Your task to perform on an android device: Go to eBay Image 0: 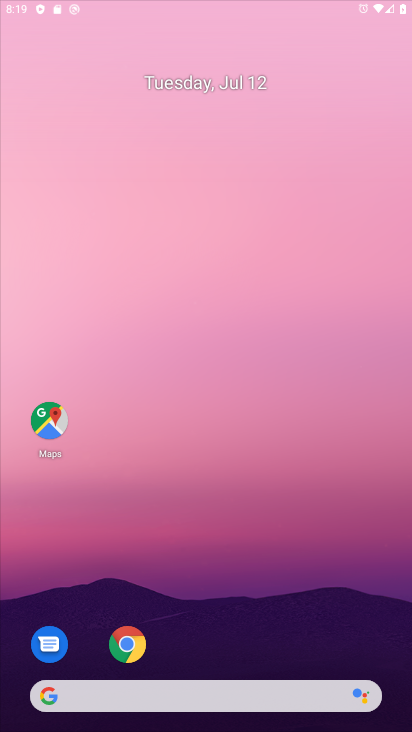
Step 0: click (87, 682)
Your task to perform on an android device: Go to eBay Image 1: 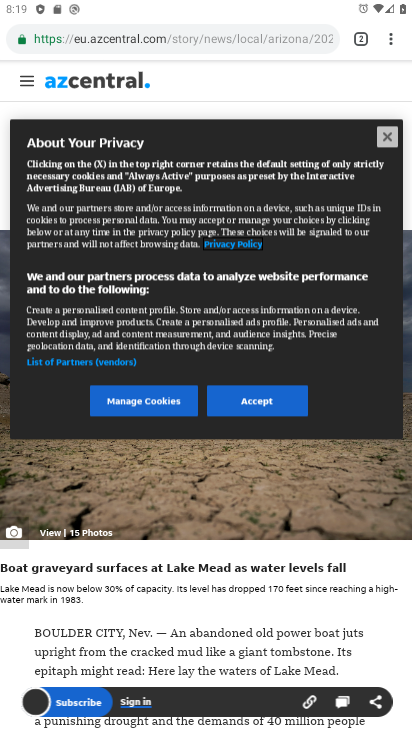
Step 1: click (116, 48)
Your task to perform on an android device: Go to eBay Image 2: 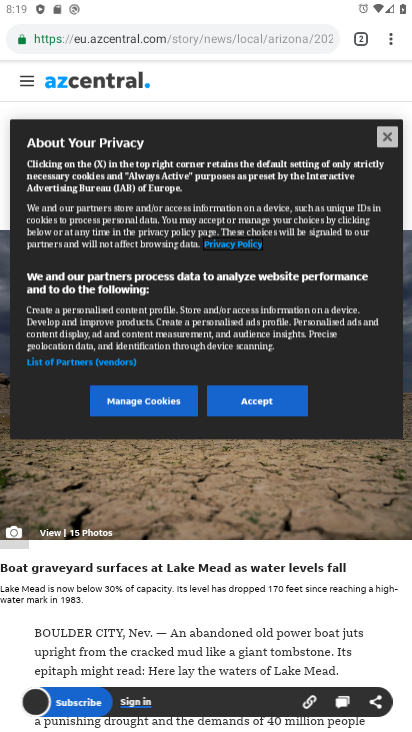
Step 2: click (146, 36)
Your task to perform on an android device: Go to eBay Image 3: 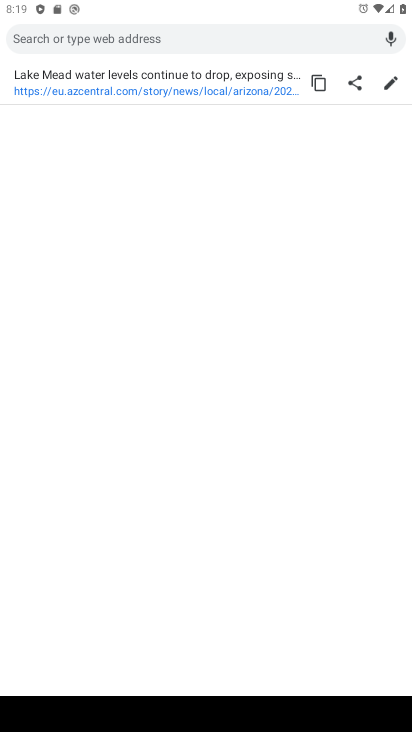
Step 3: type "eBay"
Your task to perform on an android device: Go to eBay Image 4: 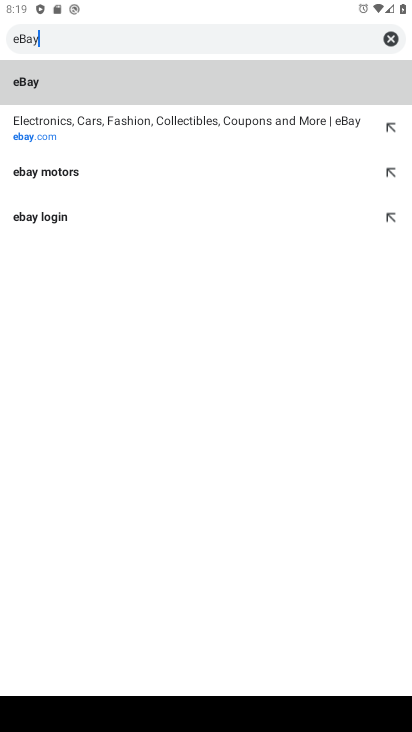
Step 4: type ""
Your task to perform on an android device: Go to eBay Image 5: 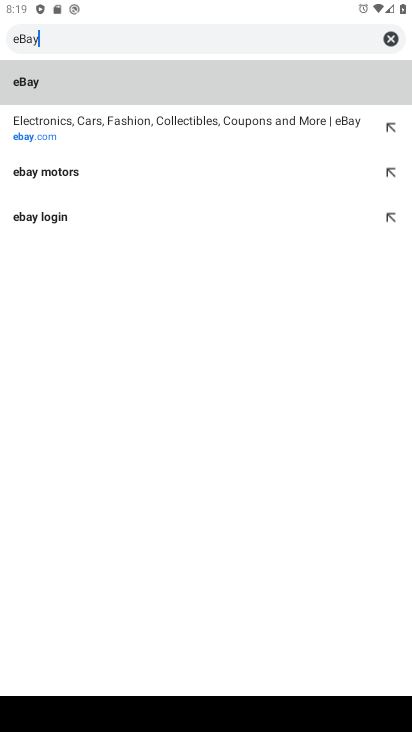
Step 5: click (20, 83)
Your task to perform on an android device: Go to eBay Image 6: 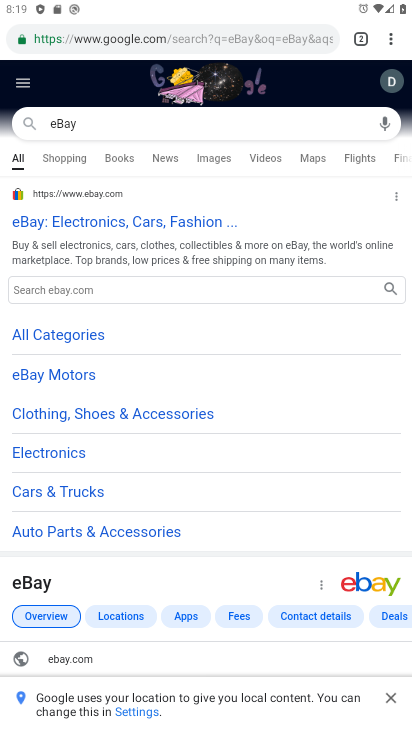
Step 6: task complete